Your task to perform on an android device: turn on location history Image 0: 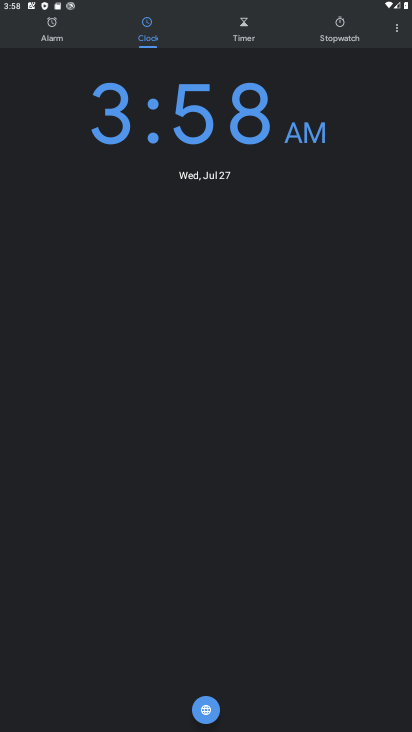
Step 0: press home button
Your task to perform on an android device: turn on location history Image 1: 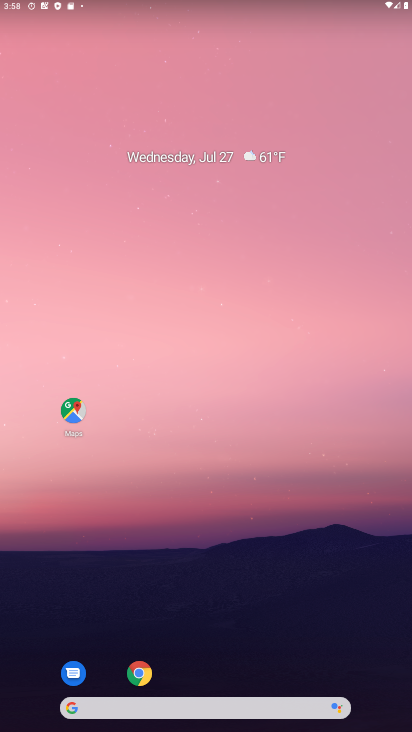
Step 1: drag from (18, 681) to (226, 118)
Your task to perform on an android device: turn on location history Image 2: 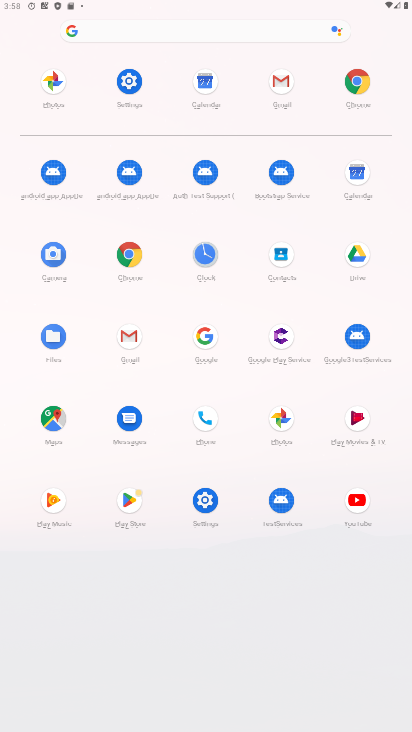
Step 2: click (200, 498)
Your task to perform on an android device: turn on location history Image 3: 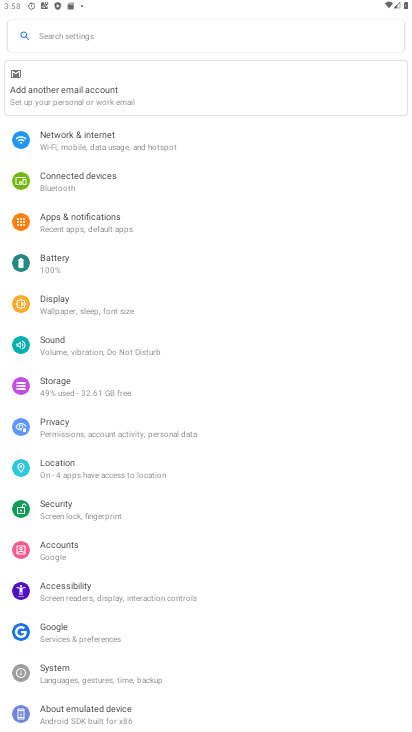
Step 3: click (56, 465)
Your task to perform on an android device: turn on location history Image 4: 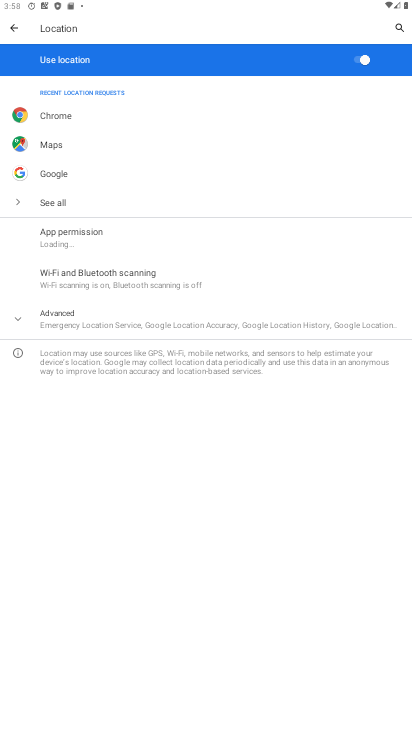
Step 4: click (72, 312)
Your task to perform on an android device: turn on location history Image 5: 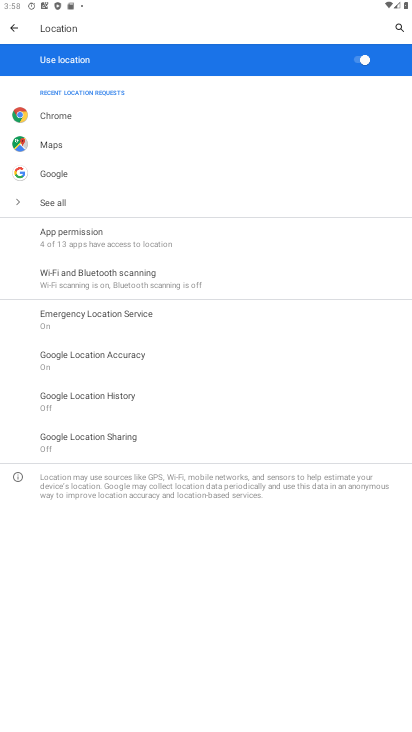
Step 5: click (90, 400)
Your task to perform on an android device: turn on location history Image 6: 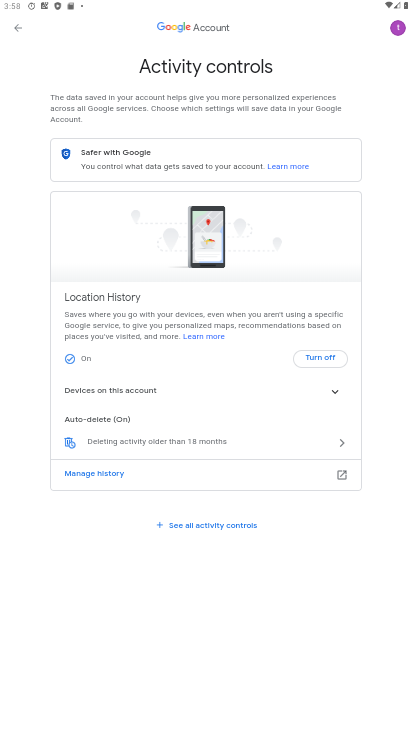
Step 6: click (332, 355)
Your task to perform on an android device: turn on location history Image 7: 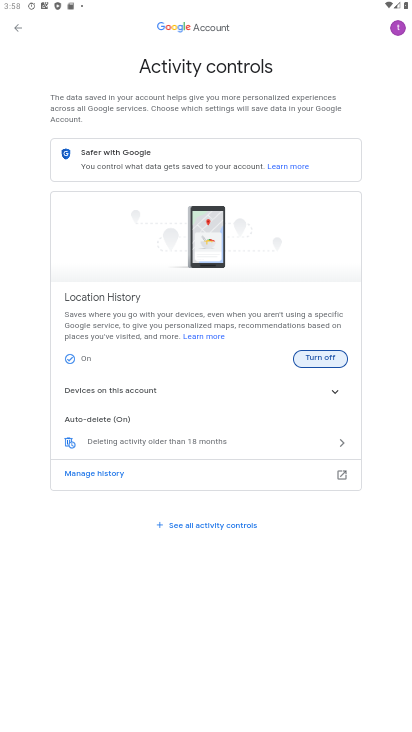
Step 7: click (320, 355)
Your task to perform on an android device: turn on location history Image 8: 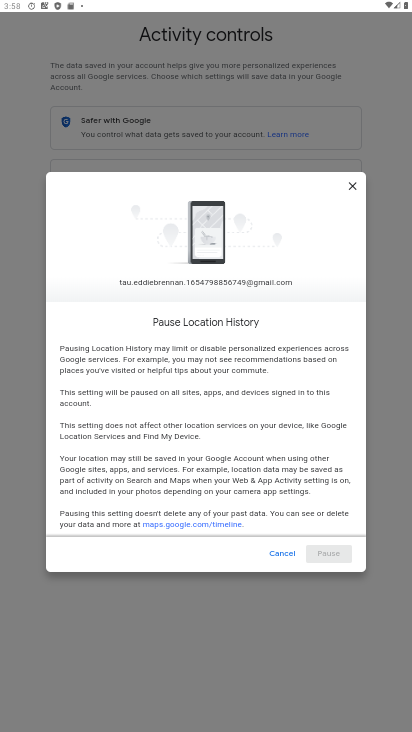
Step 8: drag from (274, 497) to (274, 372)
Your task to perform on an android device: turn on location history Image 9: 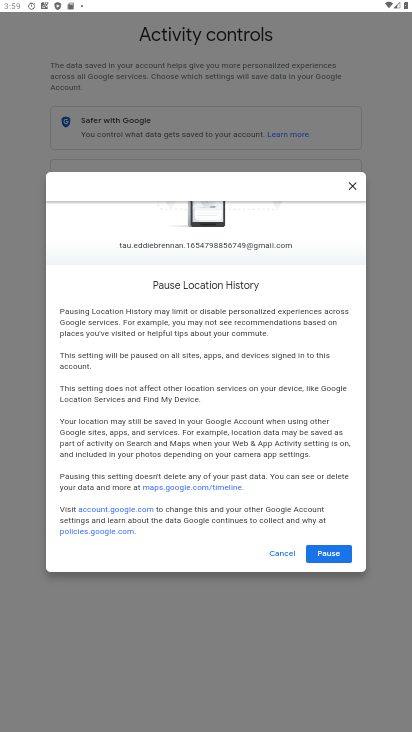
Step 9: click (325, 554)
Your task to perform on an android device: turn on location history Image 10: 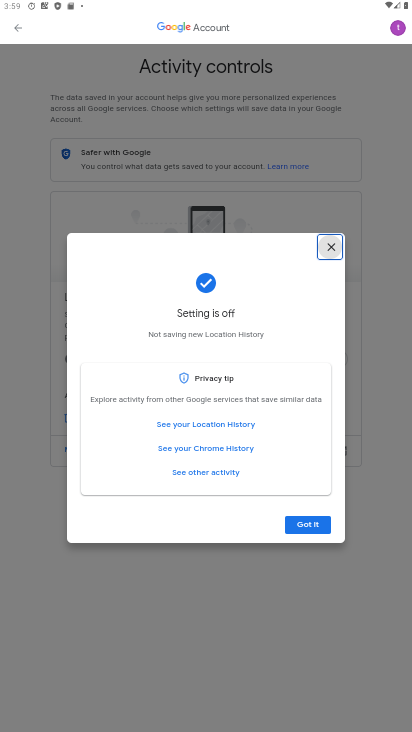
Step 10: click (313, 523)
Your task to perform on an android device: turn on location history Image 11: 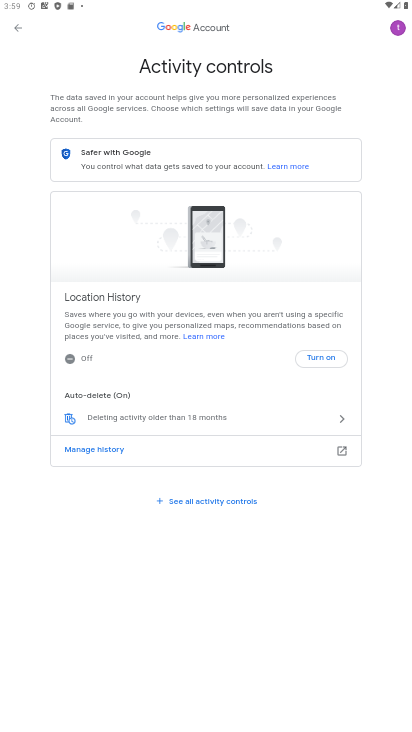
Step 11: task complete